Your task to perform on an android device: allow cookies in the chrome app Image 0: 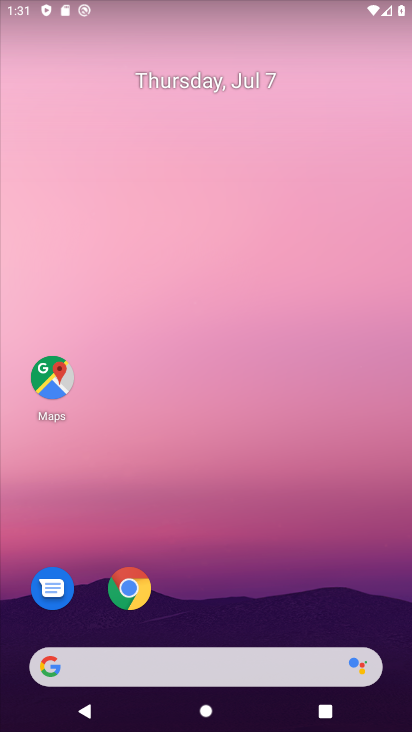
Step 0: click (144, 581)
Your task to perform on an android device: allow cookies in the chrome app Image 1: 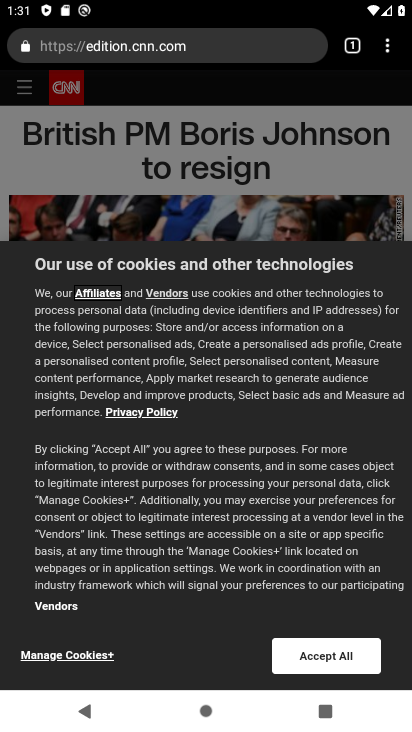
Step 1: drag from (380, 43) to (227, 505)
Your task to perform on an android device: allow cookies in the chrome app Image 2: 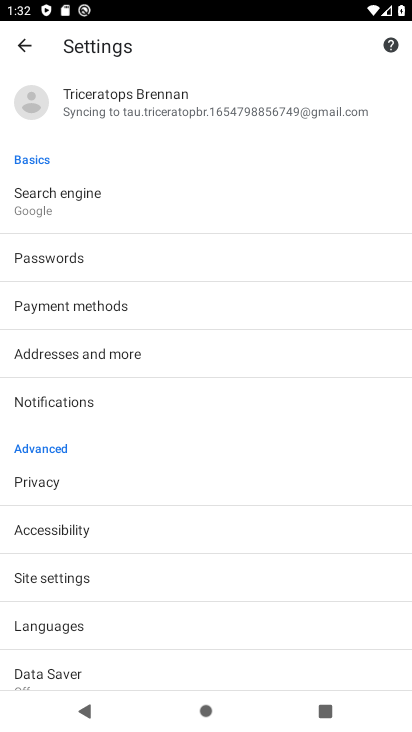
Step 2: click (60, 573)
Your task to perform on an android device: allow cookies in the chrome app Image 3: 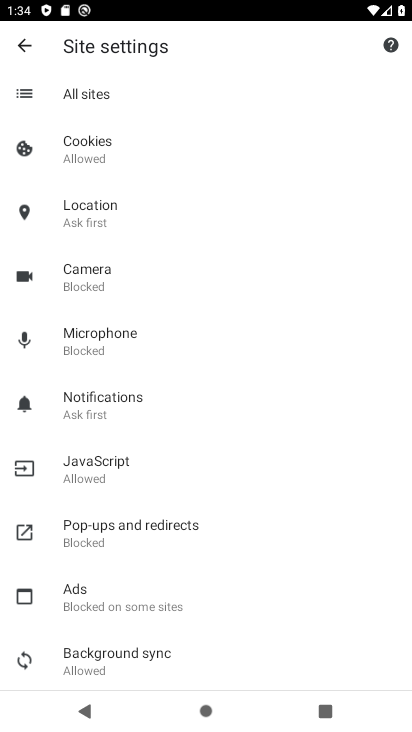
Step 3: click (103, 152)
Your task to perform on an android device: allow cookies in the chrome app Image 4: 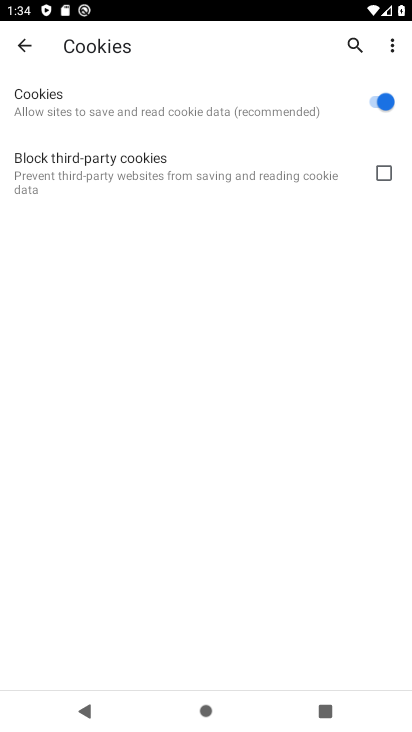
Step 4: task complete